Your task to perform on an android device: What's the weather like in Johannesburg? Image 0: 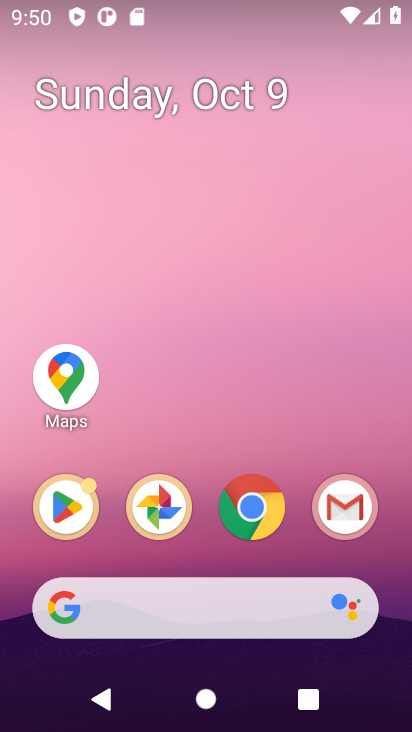
Step 0: drag from (207, 556) to (202, 77)
Your task to perform on an android device: What's the weather like in Johannesburg? Image 1: 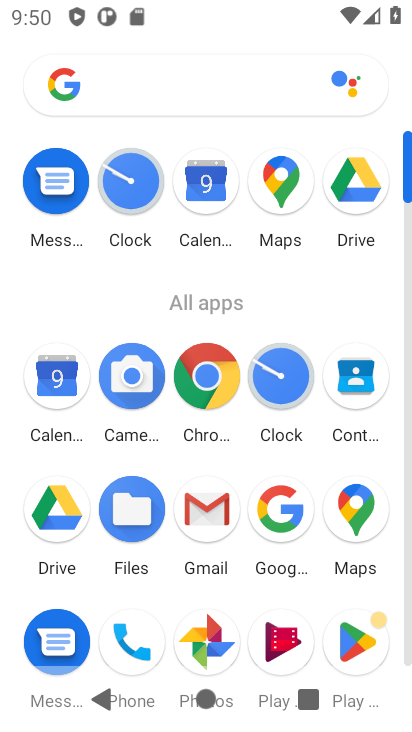
Step 1: click (209, 380)
Your task to perform on an android device: What's the weather like in Johannesburg? Image 2: 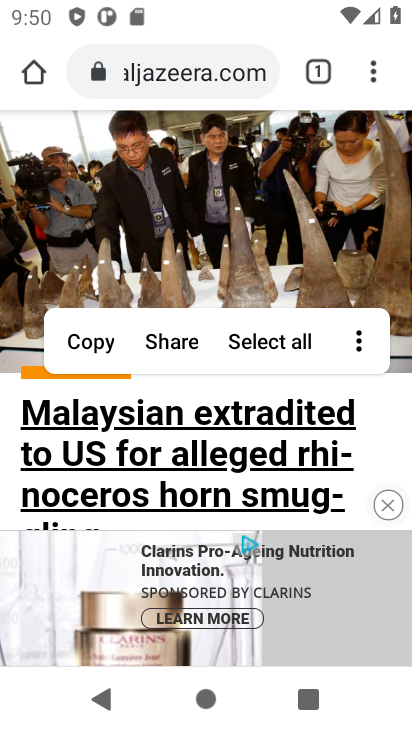
Step 2: click (156, 89)
Your task to perform on an android device: What's the weather like in Johannesburg? Image 3: 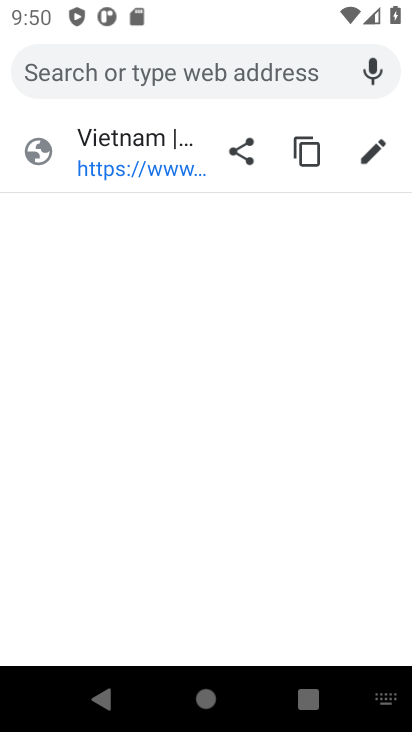
Step 3: type "What's the weather like in Johannesburg?"
Your task to perform on an android device: What's the weather like in Johannesburg? Image 4: 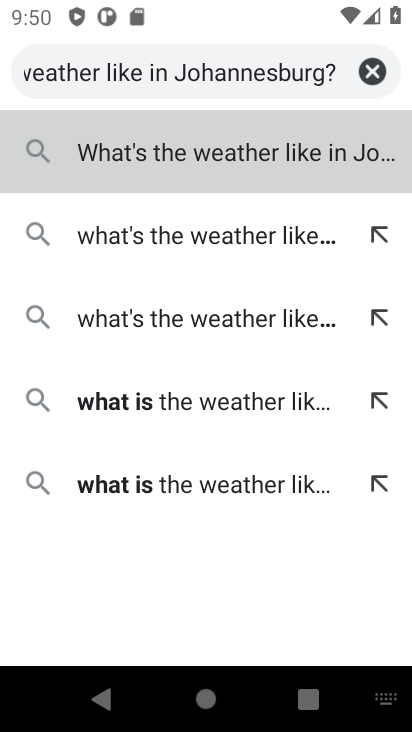
Step 4: press enter
Your task to perform on an android device: What's the weather like in Johannesburg? Image 5: 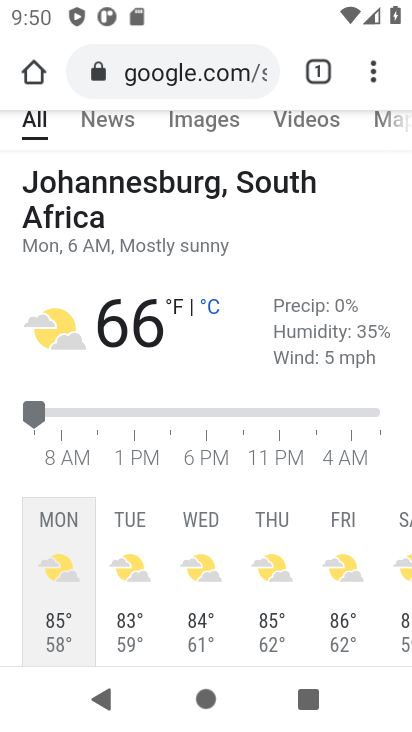
Step 5: task complete